Your task to perform on an android device: Go to Yahoo.com Image 0: 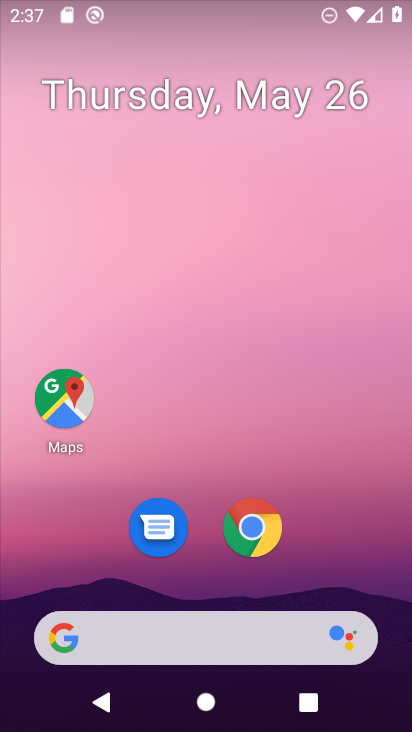
Step 0: click (234, 532)
Your task to perform on an android device: Go to Yahoo.com Image 1: 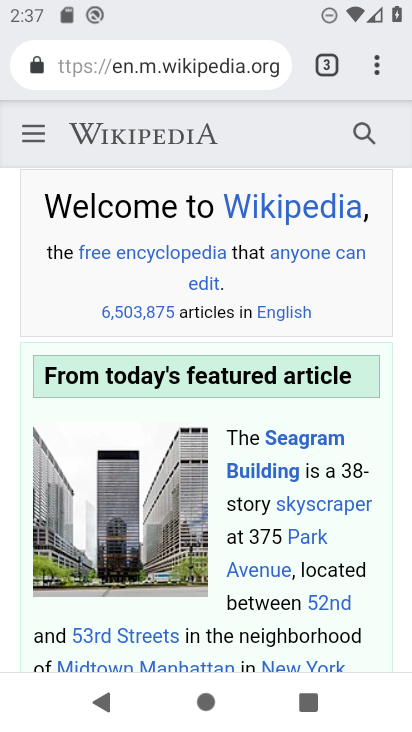
Step 1: click (339, 68)
Your task to perform on an android device: Go to Yahoo.com Image 2: 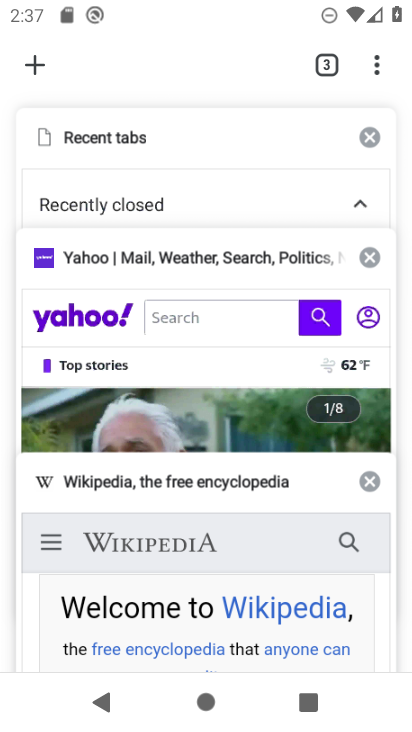
Step 2: click (177, 311)
Your task to perform on an android device: Go to Yahoo.com Image 3: 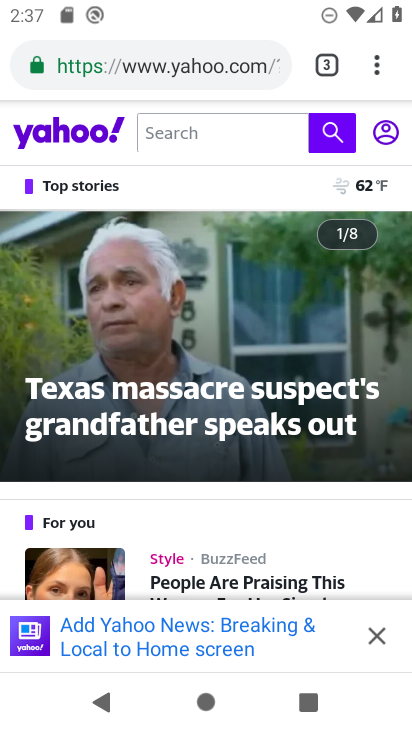
Step 3: task complete